Your task to perform on an android device: Search for Italian restaurants on Maps Image 0: 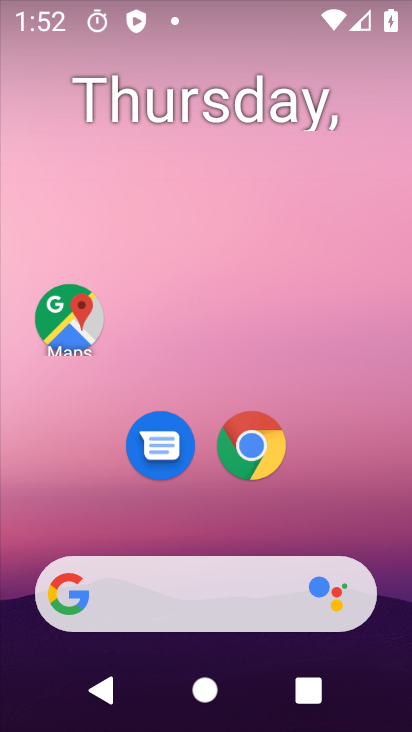
Step 0: click (52, 312)
Your task to perform on an android device: Search for Italian restaurants on Maps Image 1: 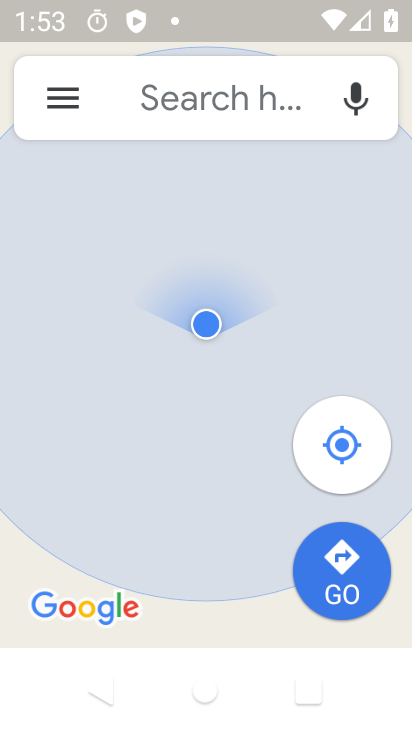
Step 1: click (285, 112)
Your task to perform on an android device: Search for Italian restaurants on Maps Image 2: 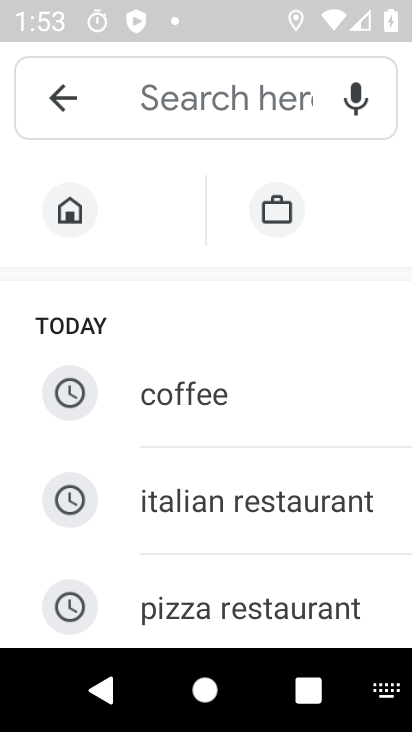
Step 2: type "italian "
Your task to perform on an android device: Search for Italian restaurants on Maps Image 3: 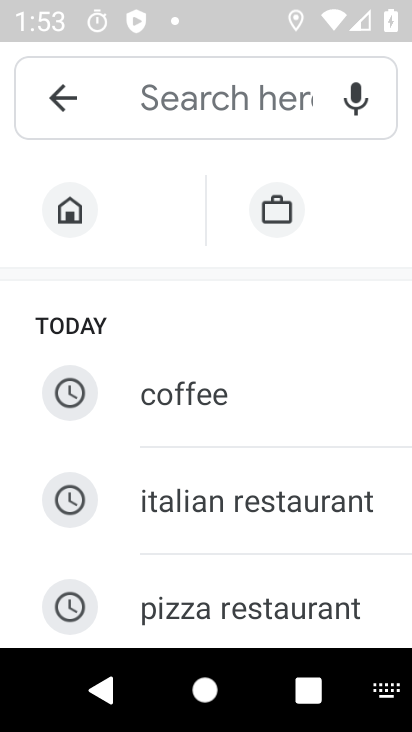
Step 3: click (240, 487)
Your task to perform on an android device: Search for Italian restaurants on Maps Image 4: 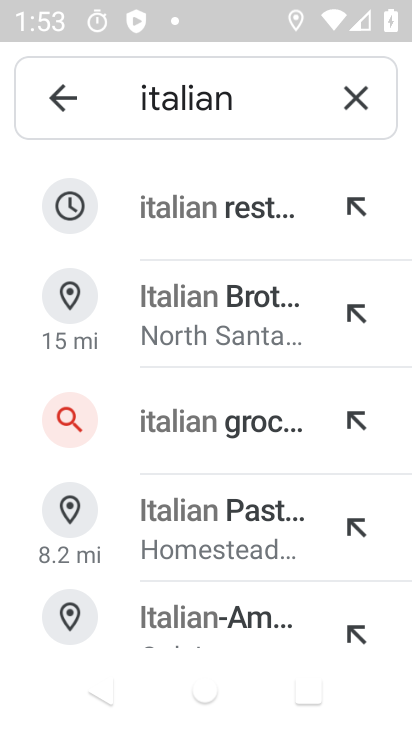
Step 4: click (194, 233)
Your task to perform on an android device: Search for Italian restaurants on Maps Image 5: 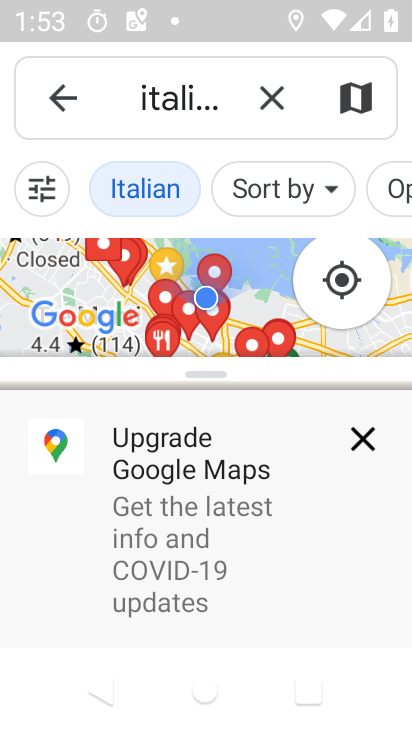
Step 5: task complete